Your task to perform on an android device: Open the stopwatch Image 0: 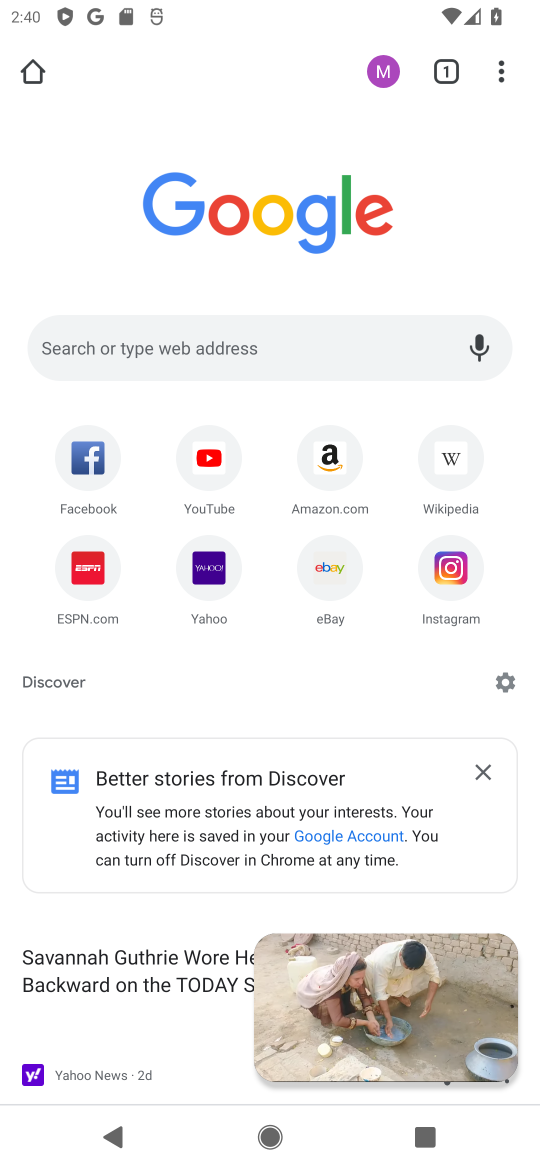
Step 0: click (483, 967)
Your task to perform on an android device: Open the stopwatch Image 1: 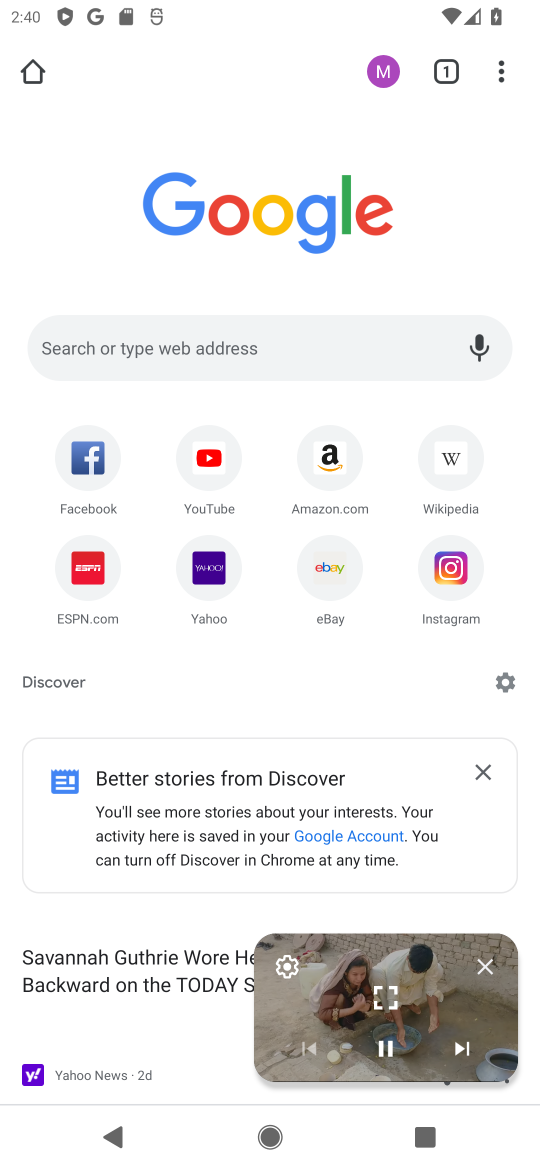
Step 1: click (484, 971)
Your task to perform on an android device: Open the stopwatch Image 2: 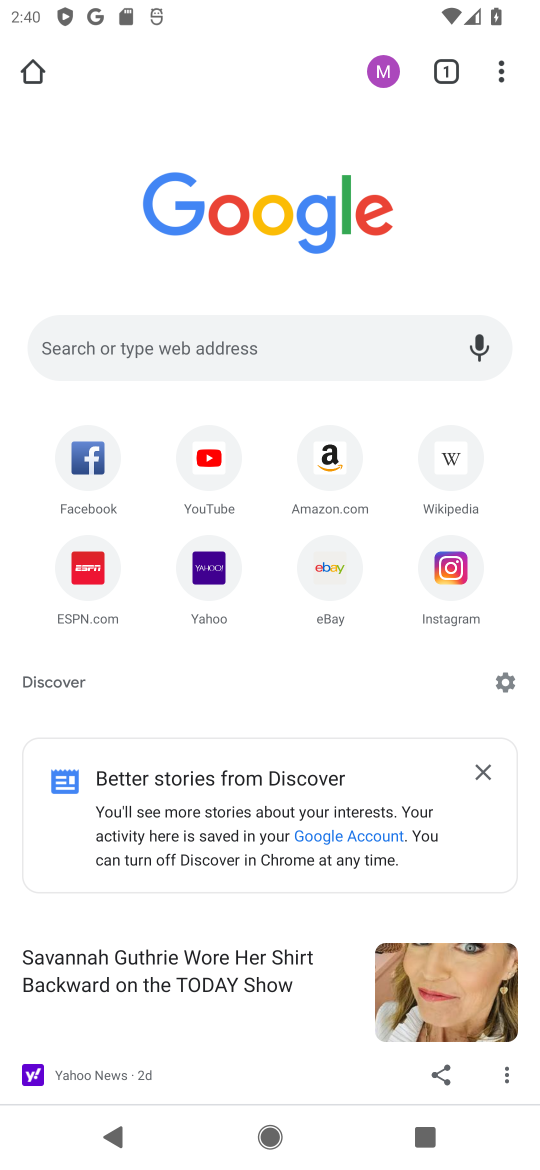
Step 2: press home button
Your task to perform on an android device: Open the stopwatch Image 3: 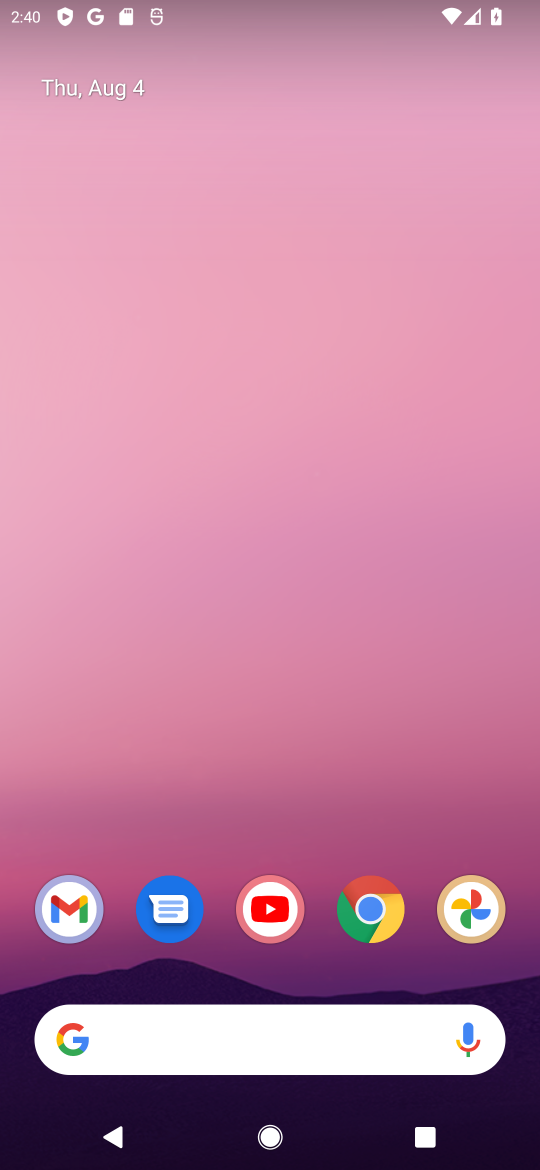
Step 3: drag from (243, 1029) to (471, 13)
Your task to perform on an android device: Open the stopwatch Image 4: 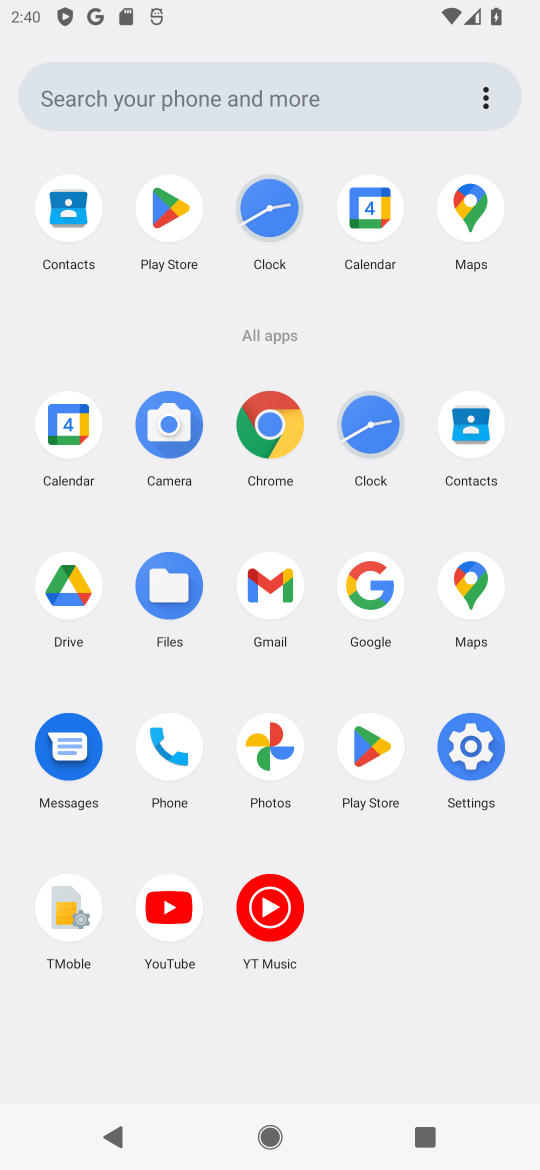
Step 4: click (279, 208)
Your task to perform on an android device: Open the stopwatch Image 5: 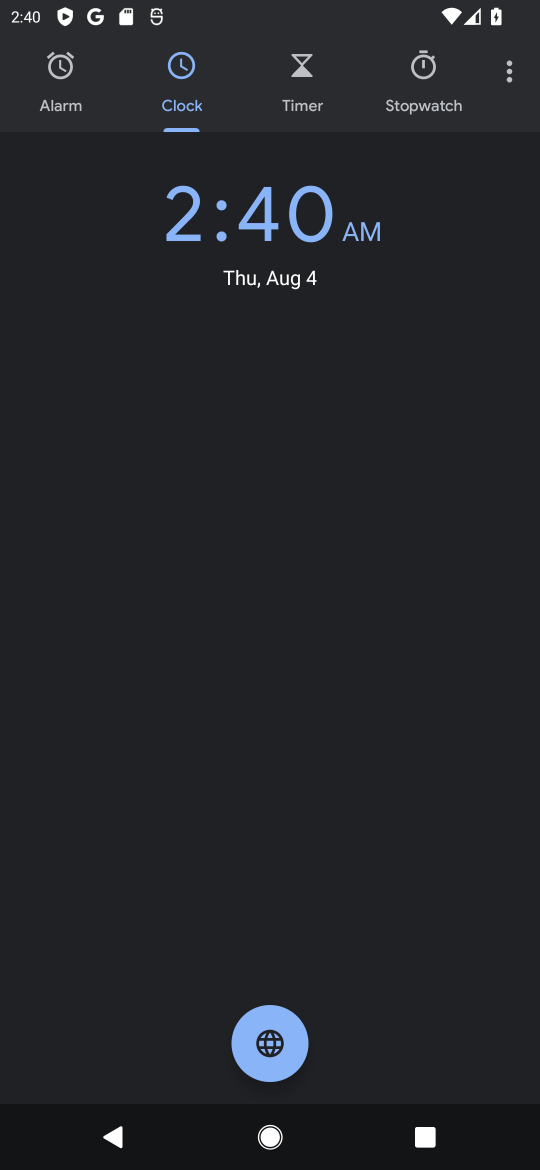
Step 5: click (410, 76)
Your task to perform on an android device: Open the stopwatch Image 6: 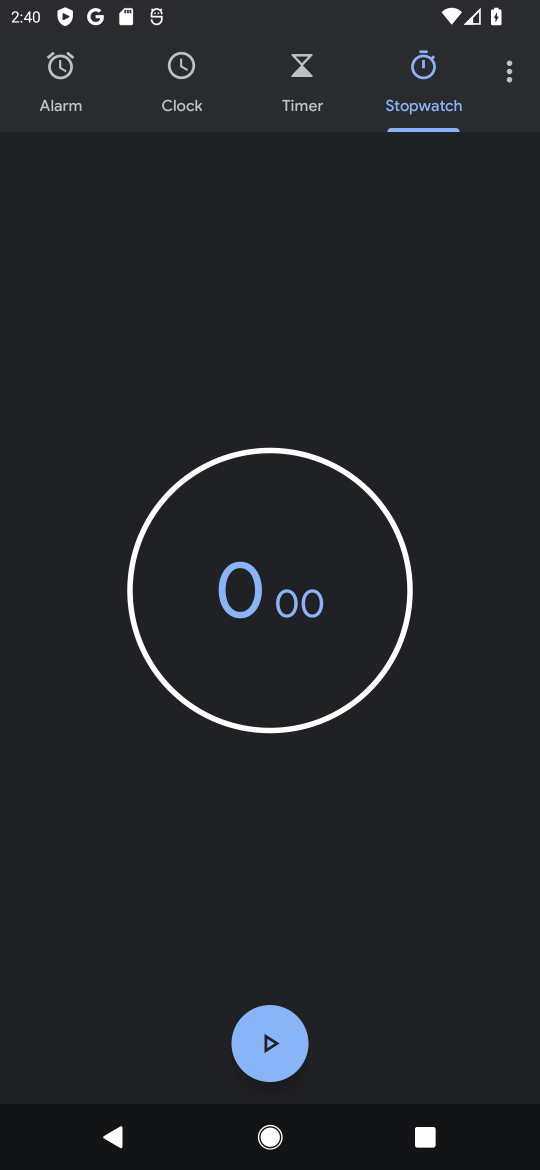
Step 6: task complete